Your task to perform on an android device: Go to settings Image 0: 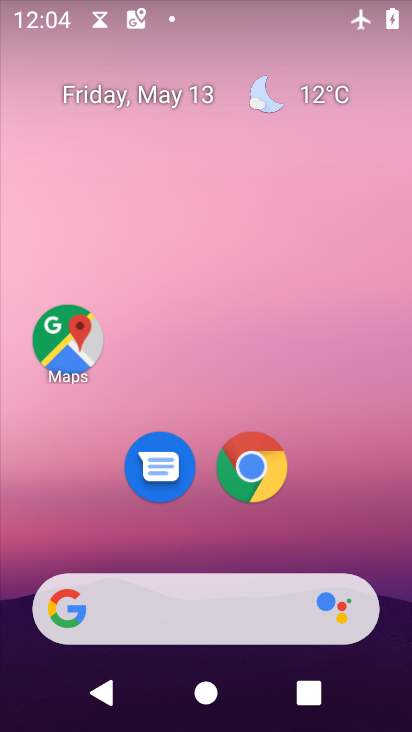
Step 0: drag from (346, 523) to (254, 21)
Your task to perform on an android device: Go to settings Image 1: 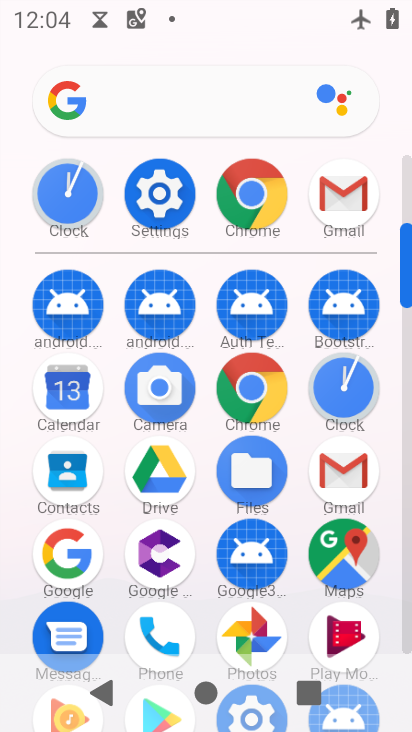
Step 1: click (166, 186)
Your task to perform on an android device: Go to settings Image 2: 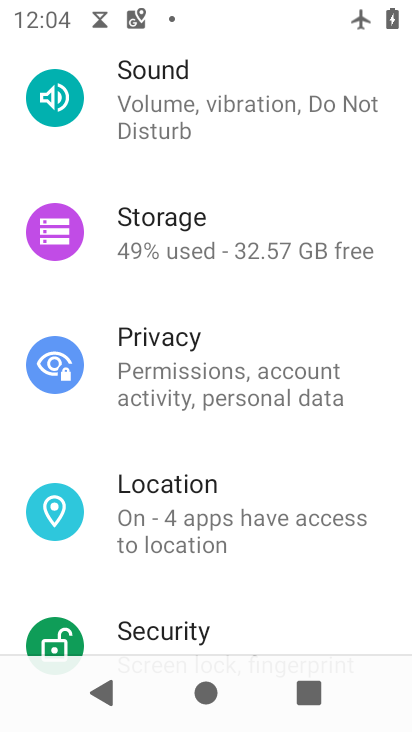
Step 2: task complete